Your task to perform on an android device: Show me recent news Image 0: 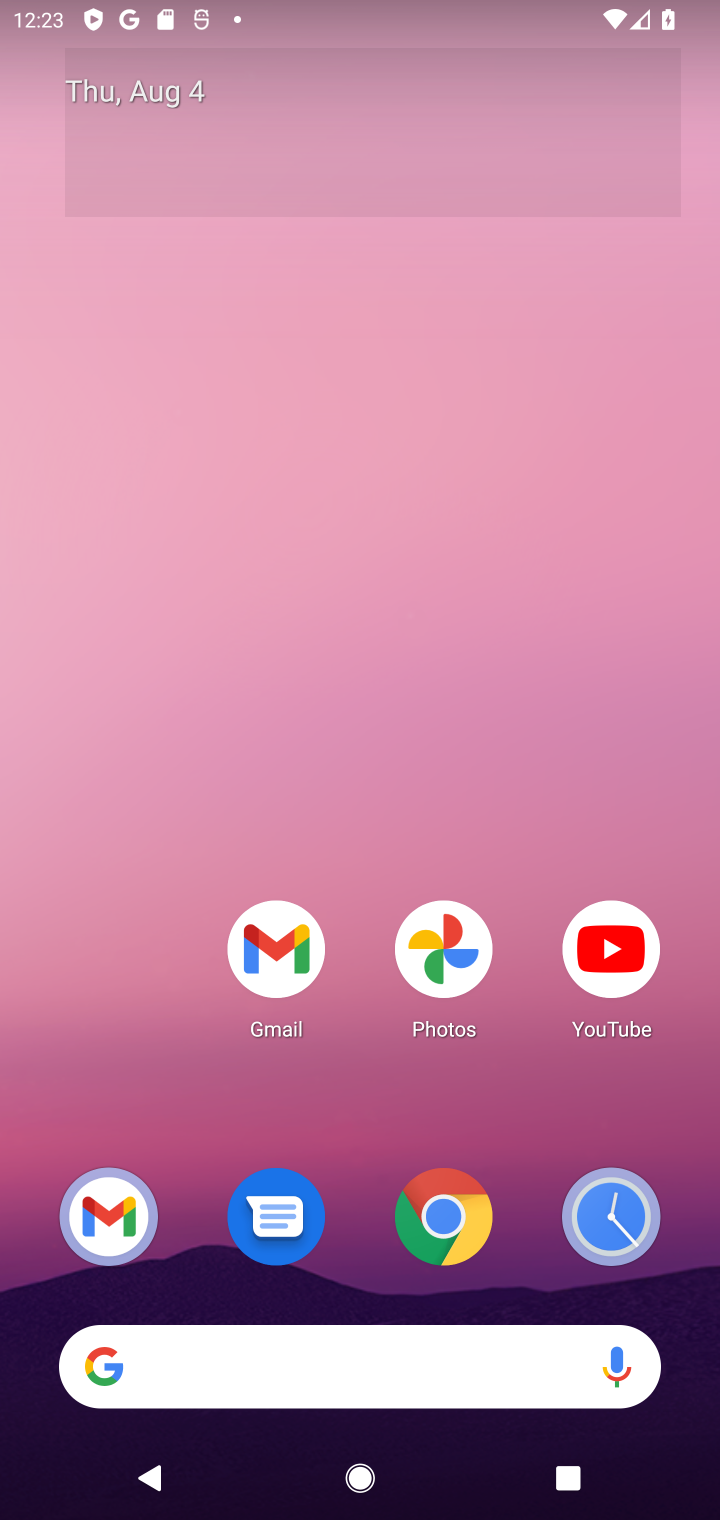
Step 0: click (308, 1362)
Your task to perform on an android device: Show me recent news Image 1: 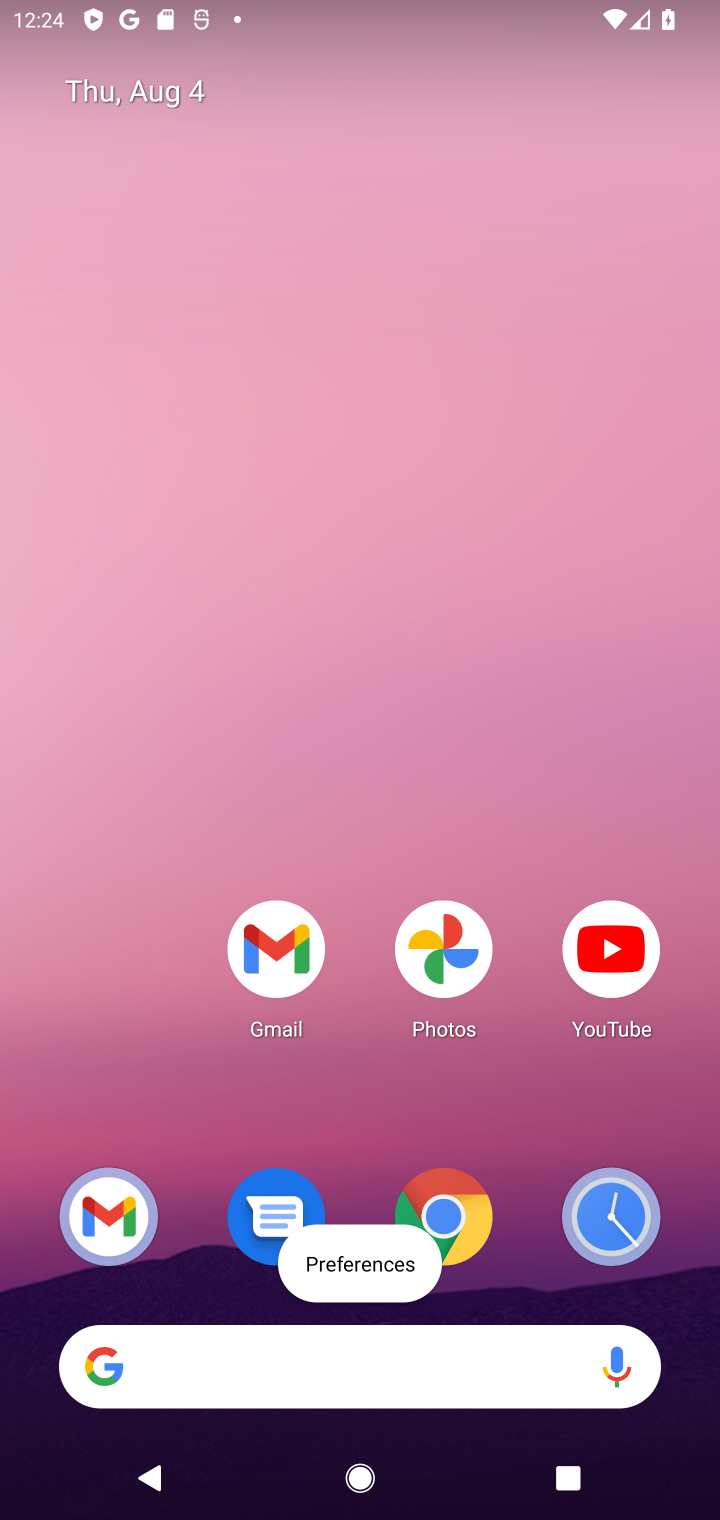
Step 1: press home button
Your task to perform on an android device: Show me recent news Image 2: 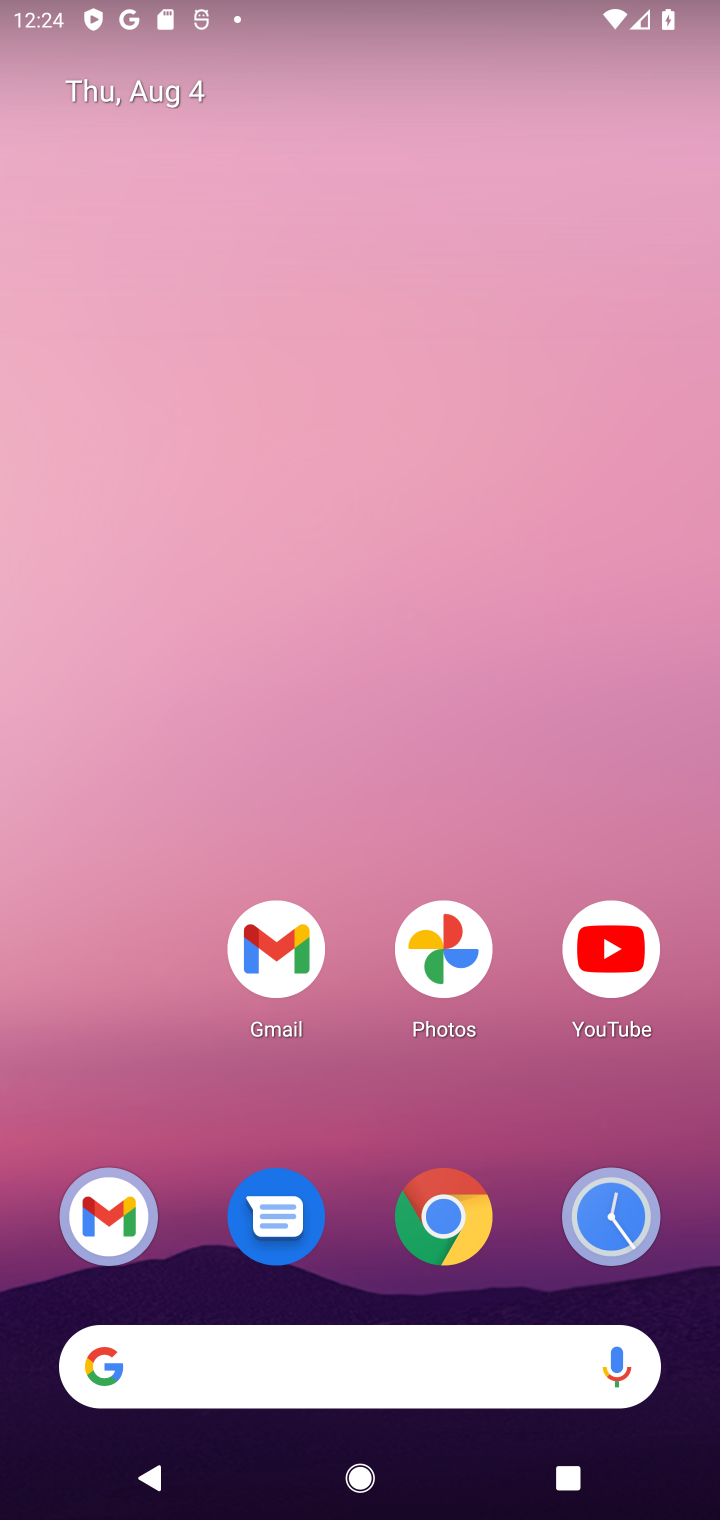
Step 2: click (317, 1378)
Your task to perform on an android device: Show me recent news Image 3: 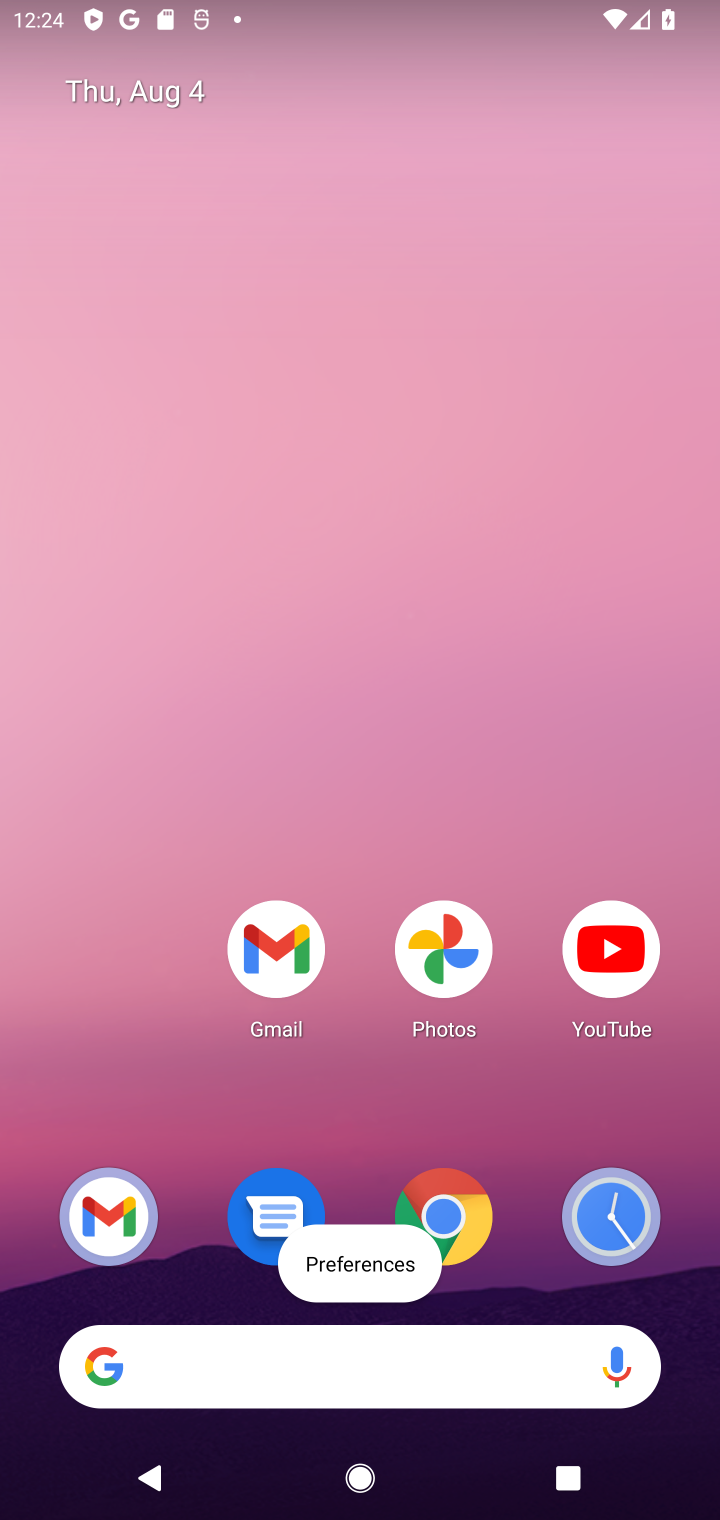
Step 3: click (464, 1210)
Your task to perform on an android device: Show me recent news Image 4: 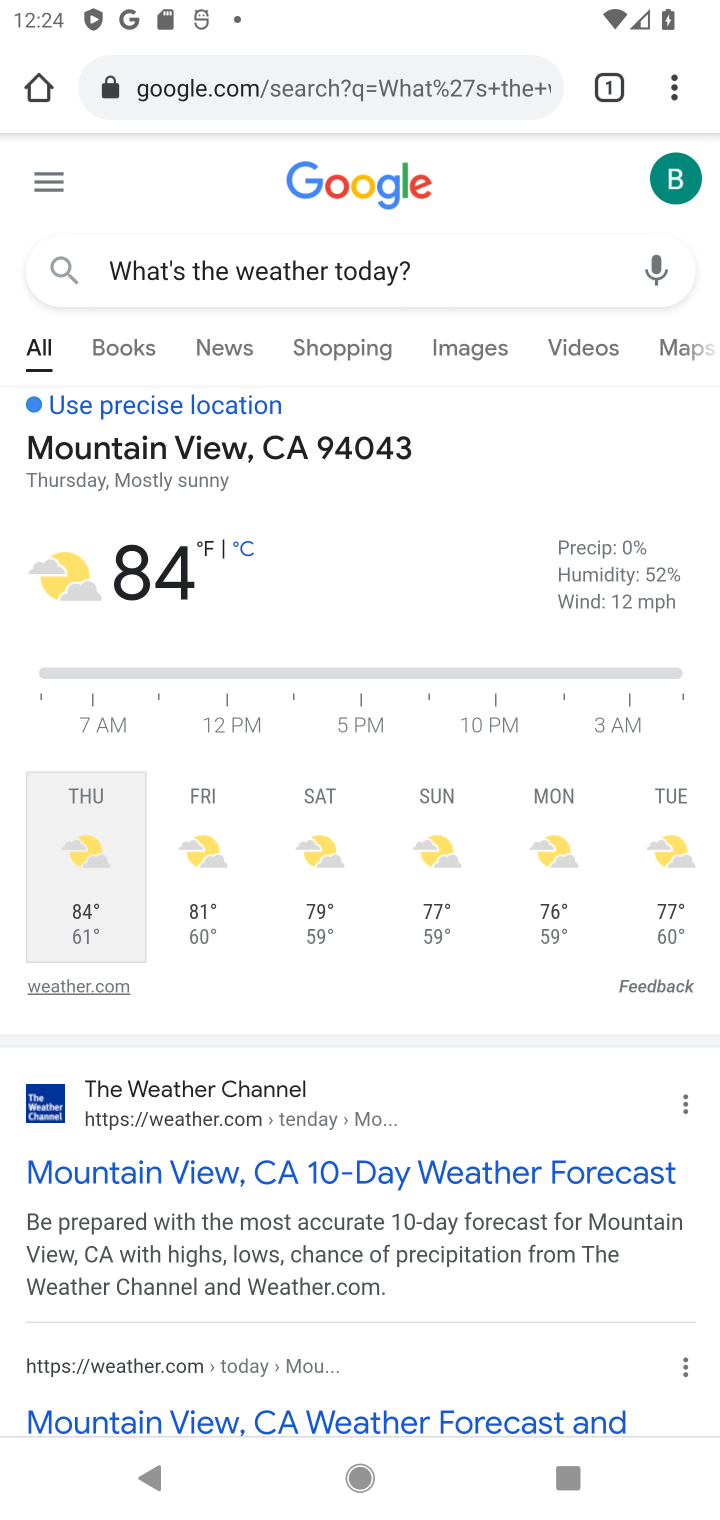
Step 4: click (489, 83)
Your task to perform on an android device: Show me recent news Image 5: 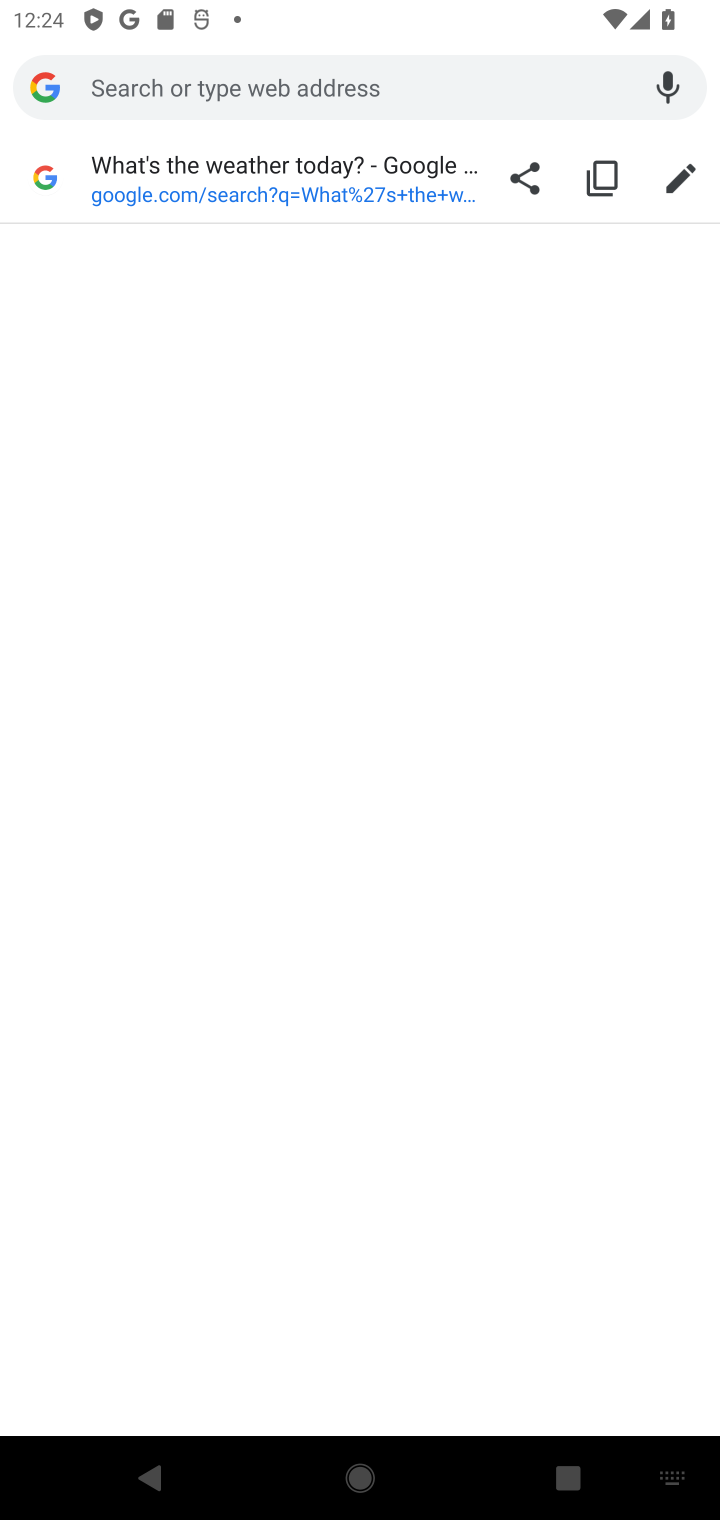
Step 5: type "recent news"
Your task to perform on an android device: Show me recent news Image 6: 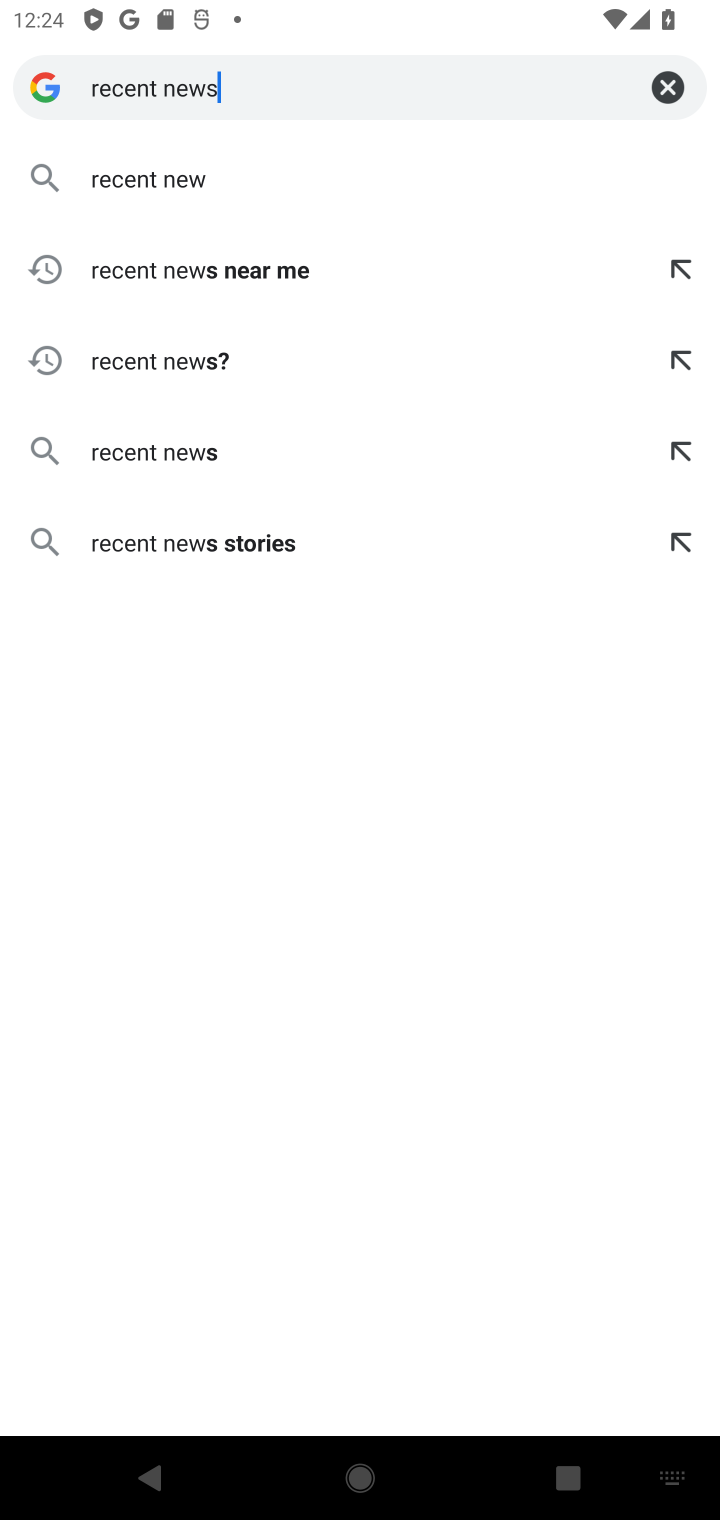
Step 6: type ""
Your task to perform on an android device: Show me recent news Image 7: 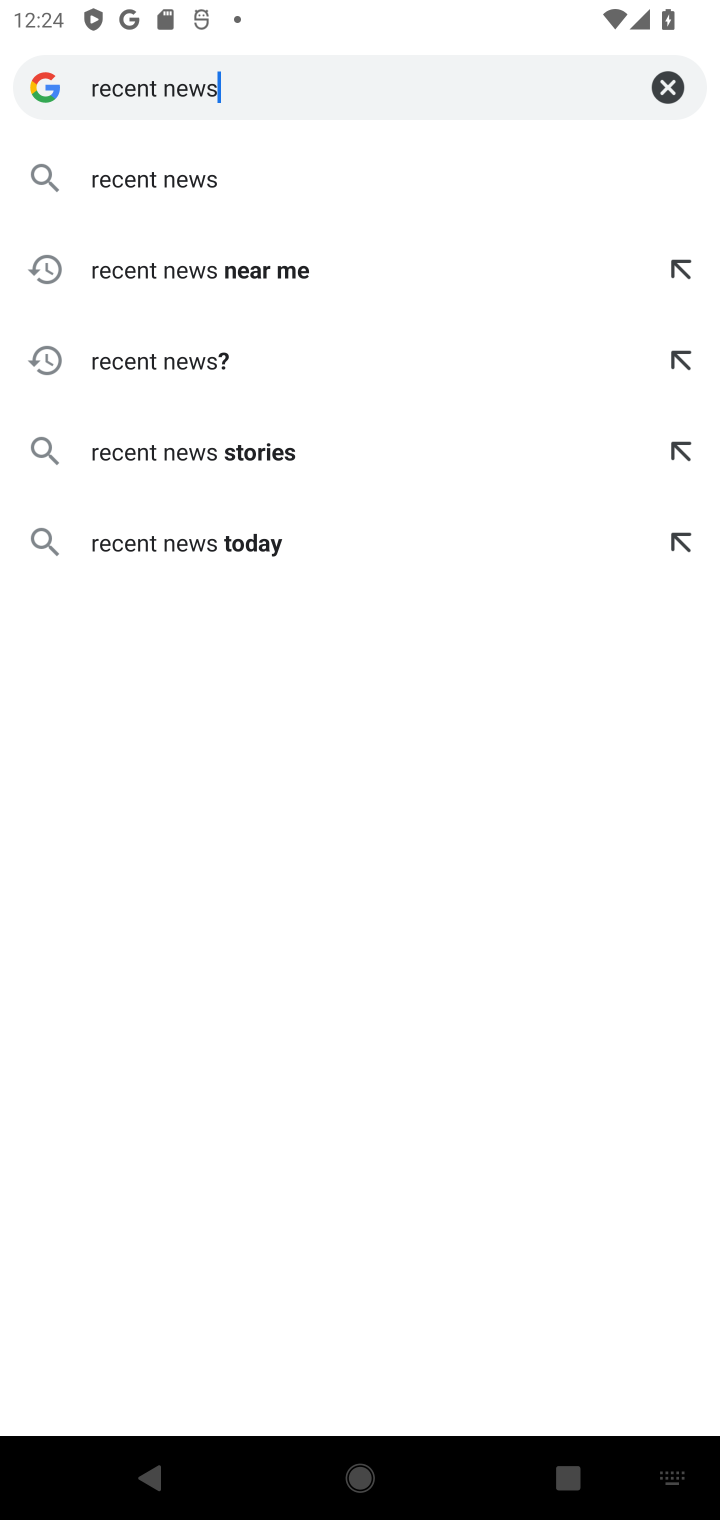
Step 7: press enter
Your task to perform on an android device: Show me recent news Image 8: 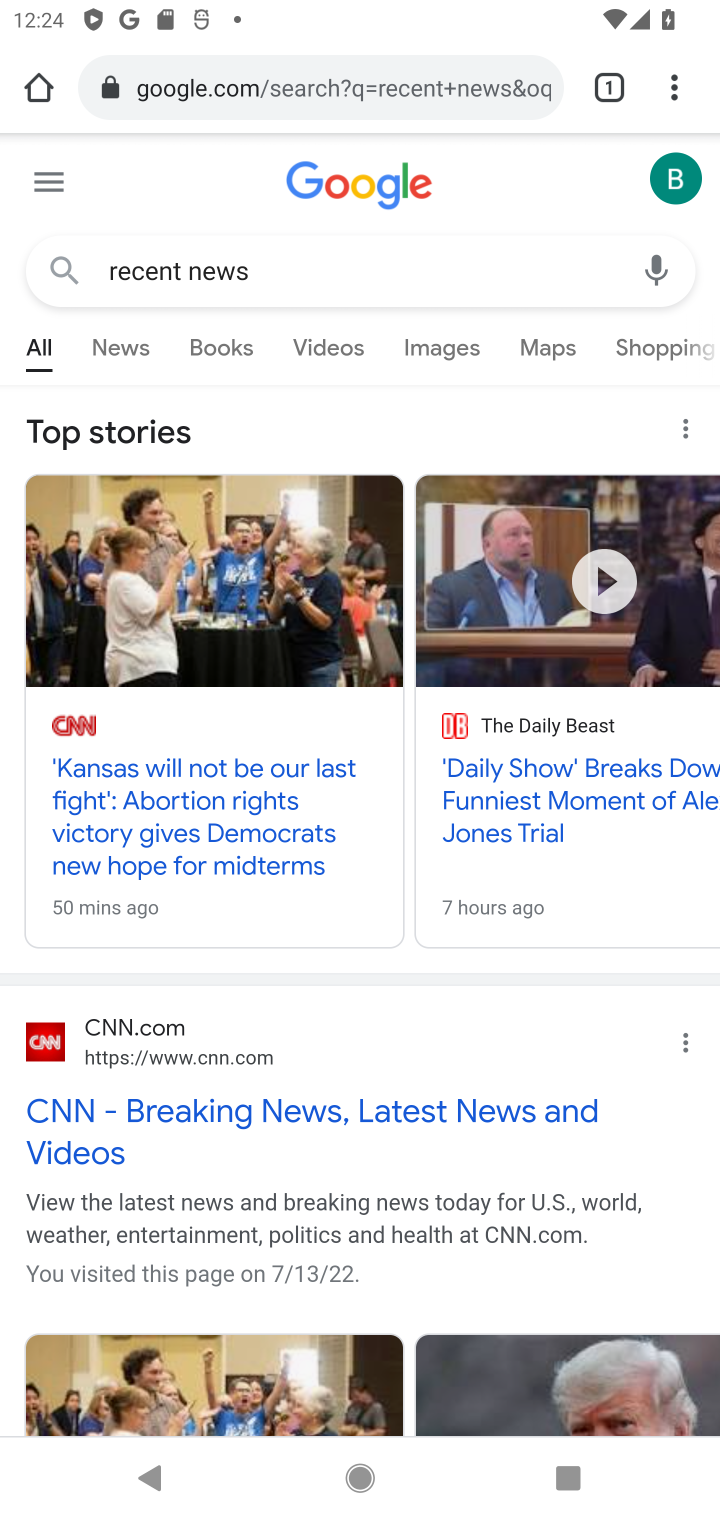
Step 8: task complete